Your task to perform on an android device: change your default location settings in chrome Image 0: 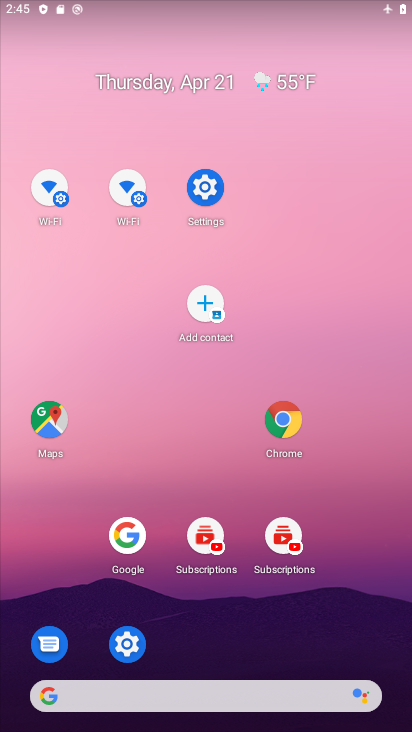
Step 0: drag from (354, 571) to (205, 164)
Your task to perform on an android device: change your default location settings in chrome Image 1: 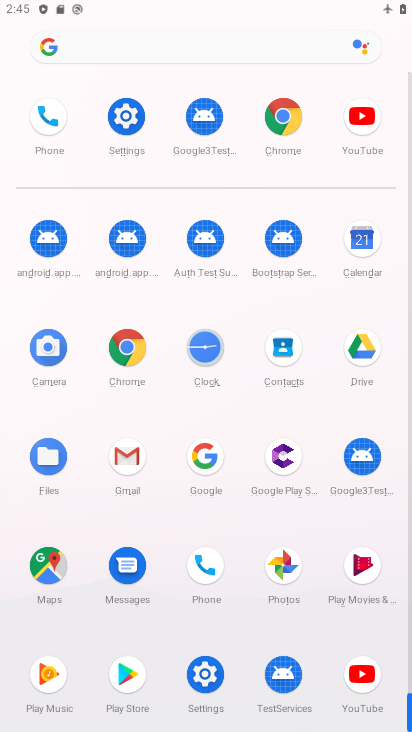
Step 1: drag from (346, 577) to (284, 2)
Your task to perform on an android device: change your default location settings in chrome Image 2: 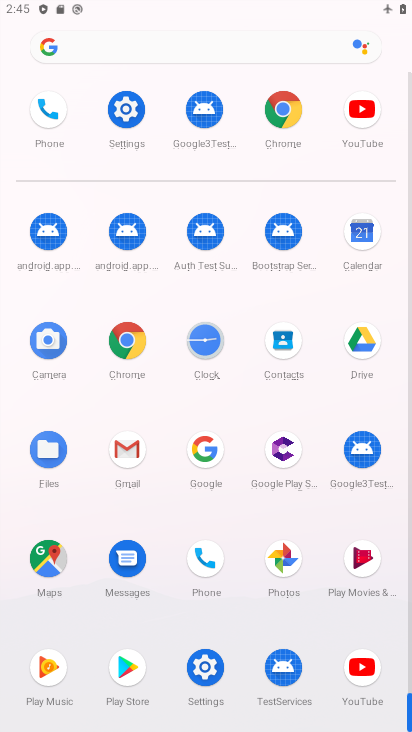
Step 2: click (125, 115)
Your task to perform on an android device: change your default location settings in chrome Image 3: 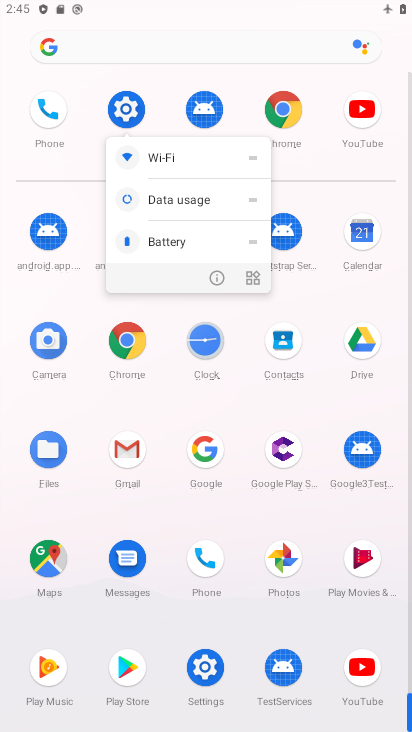
Step 3: click (142, 145)
Your task to perform on an android device: change your default location settings in chrome Image 4: 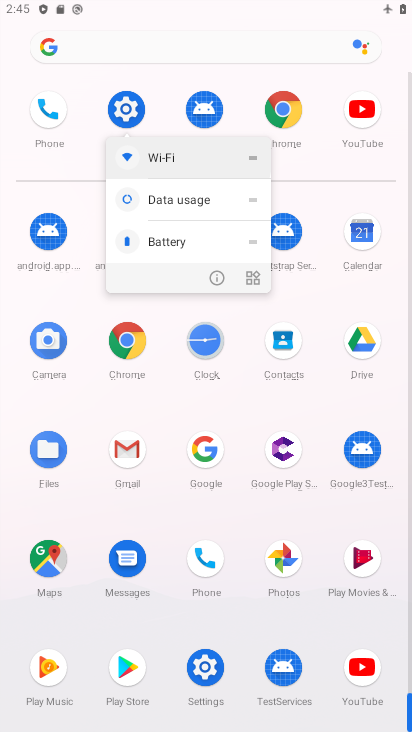
Step 4: click (125, 94)
Your task to perform on an android device: change your default location settings in chrome Image 5: 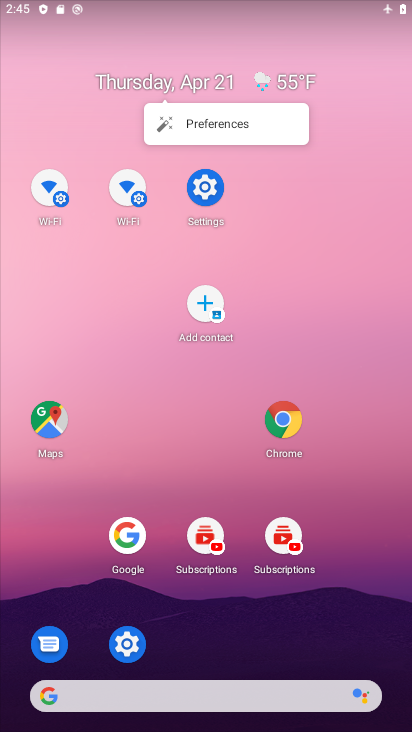
Step 5: drag from (223, 11) to (267, 0)
Your task to perform on an android device: change your default location settings in chrome Image 6: 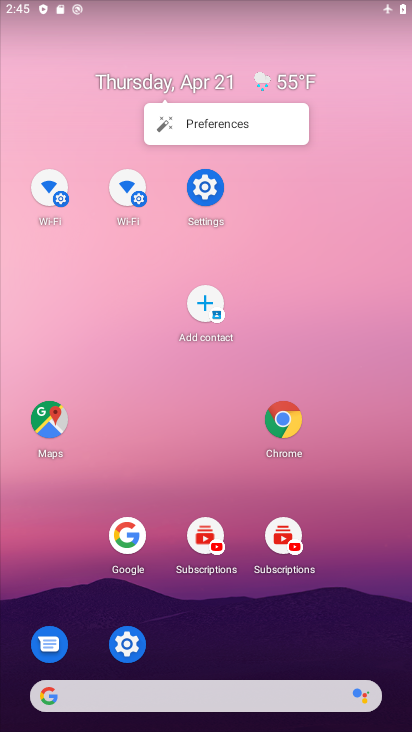
Step 6: click (99, 126)
Your task to perform on an android device: change your default location settings in chrome Image 7: 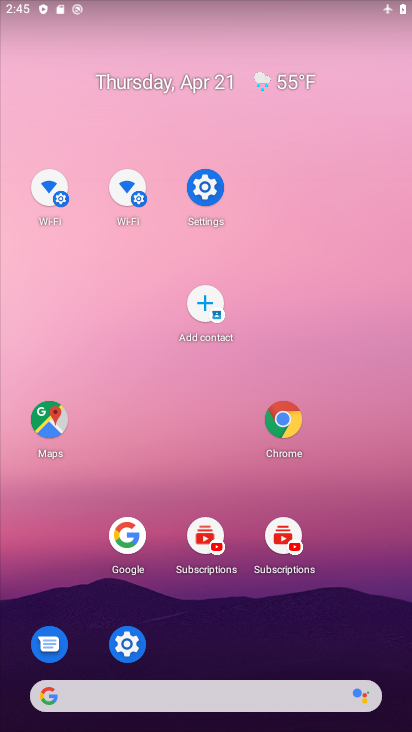
Step 7: drag from (269, 571) to (91, 41)
Your task to perform on an android device: change your default location settings in chrome Image 8: 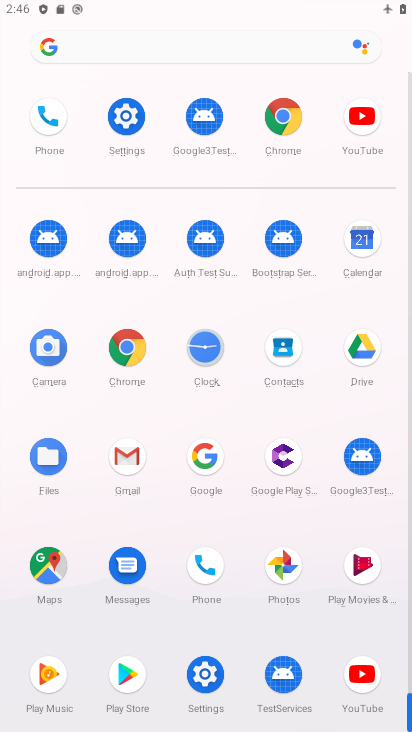
Step 8: click (291, 114)
Your task to perform on an android device: change your default location settings in chrome Image 9: 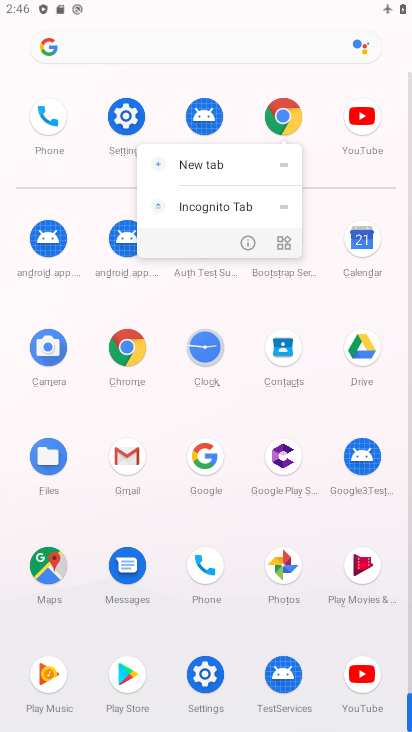
Step 9: click (281, 123)
Your task to perform on an android device: change your default location settings in chrome Image 10: 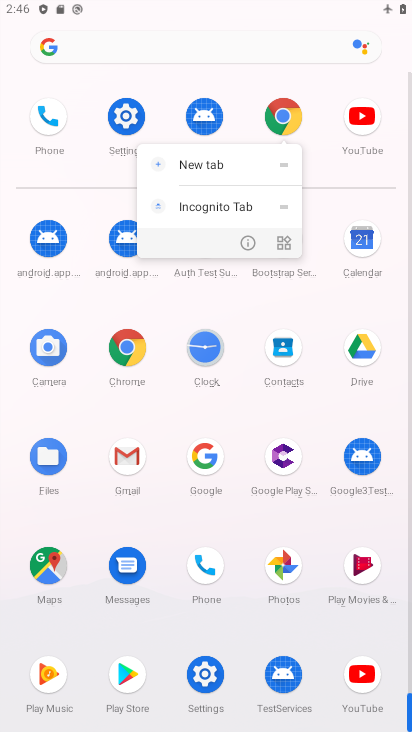
Step 10: click (282, 122)
Your task to perform on an android device: change your default location settings in chrome Image 11: 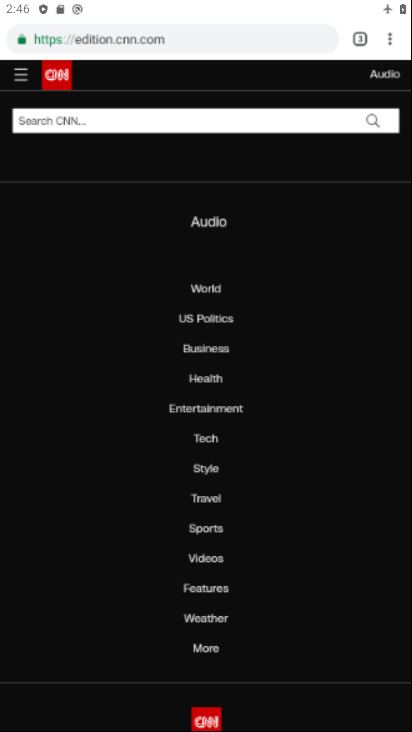
Step 11: click (278, 121)
Your task to perform on an android device: change your default location settings in chrome Image 12: 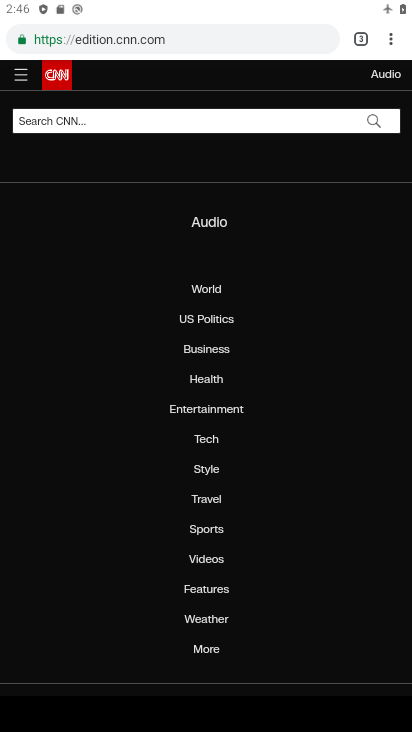
Step 12: drag from (386, 33) to (402, 184)
Your task to perform on an android device: change your default location settings in chrome Image 13: 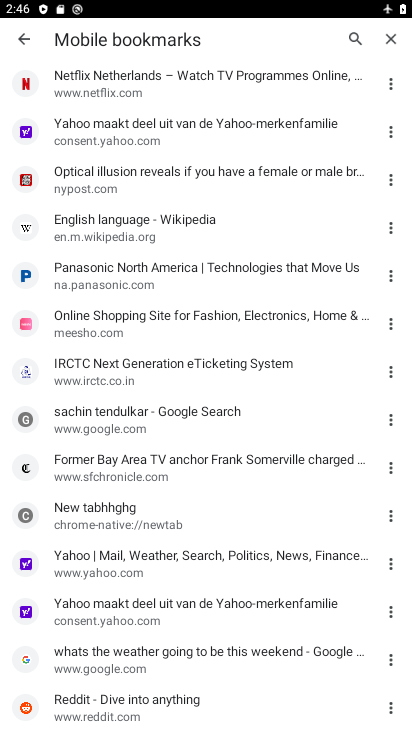
Step 13: click (27, 36)
Your task to perform on an android device: change your default location settings in chrome Image 14: 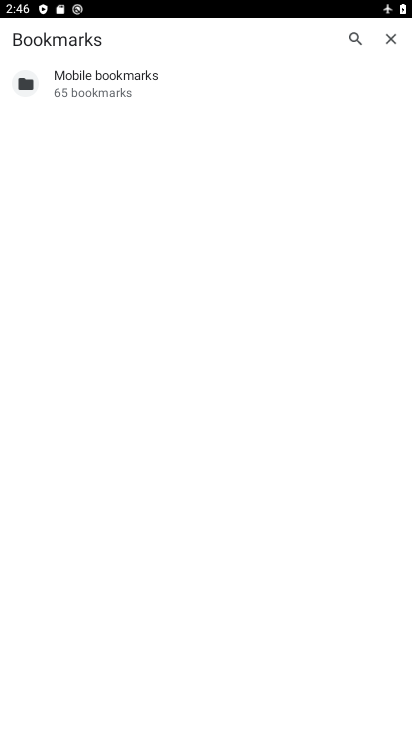
Step 14: click (386, 38)
Your task to perform on an android device: change your default location settings in chrome Image 15: 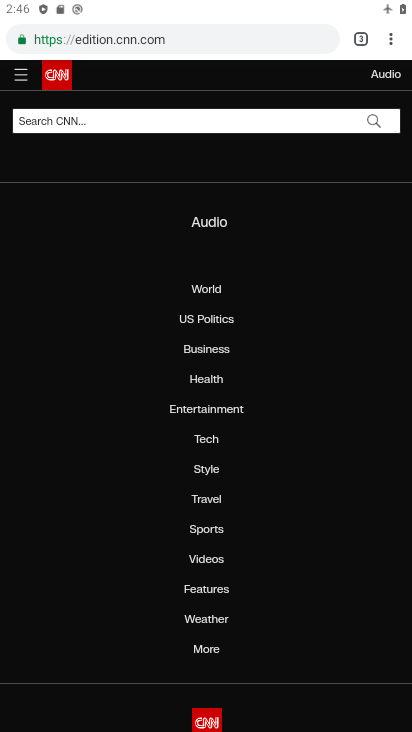
Step 15: click (392, 35)
Your task to perform on an android device: change your default location settings in chrome Image 16: 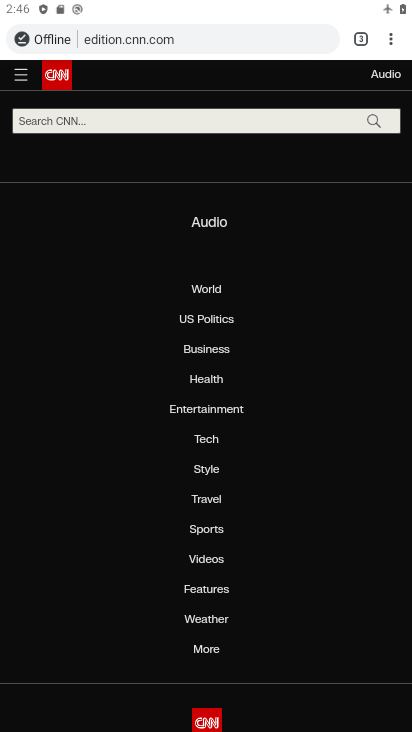
Step 16: click (390, 29)
Your task to perform on an android device: change your default location settings in chrome Image 17: 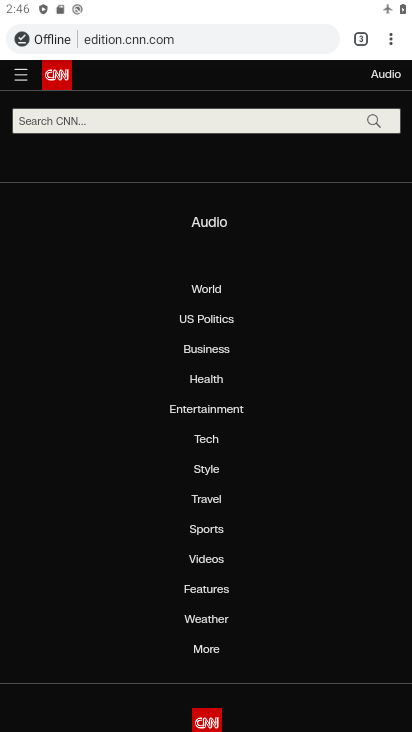
Step 17: click (394, 31)
Your task to perform on an android device: change your default location settings in chrome Image 18: 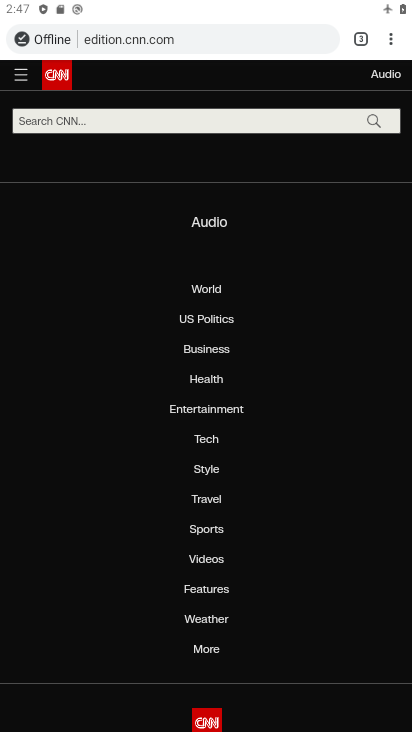
Step 18: click (394, 35)
Your task to perform on an android device: change your default location settings in chrome Image 19: 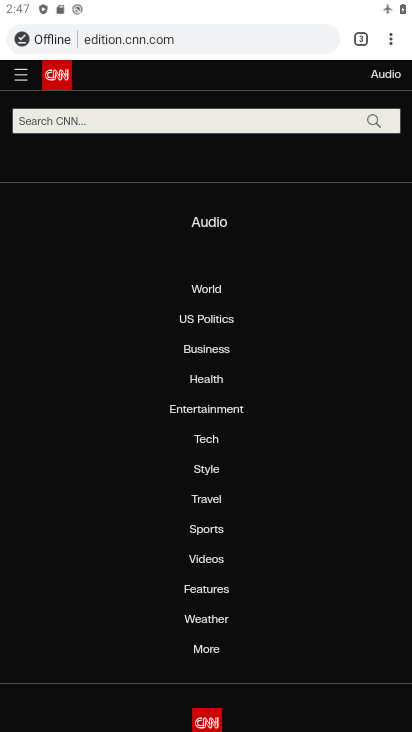
Step 19: drag from (386, 41) to (252, 461)
Your task to perform on an android device: change your default location settings in chrome Image 20: 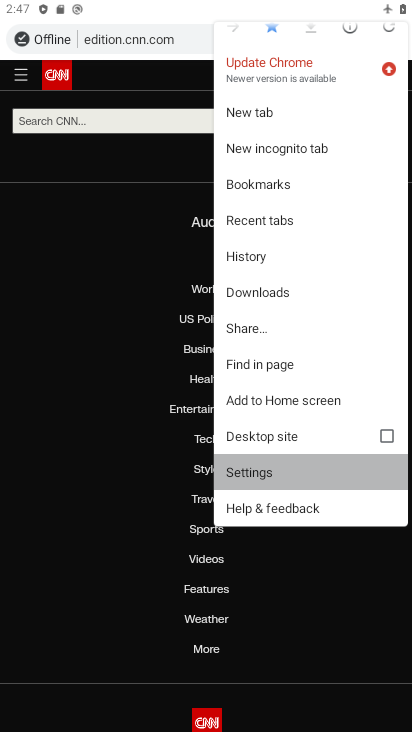
Step 20: click (252, 461)
Your task to perform on an android device: change your default location settings in chrome Image 21: 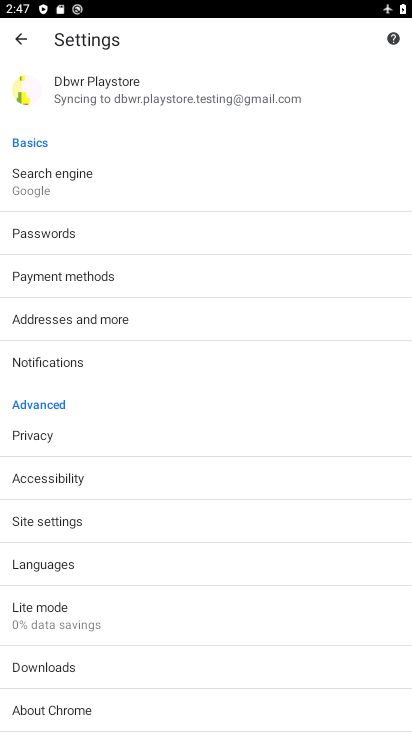
Step 21: click (39, 559)
Your task to perform on an android device: change your default location settings in chrome Image 22: 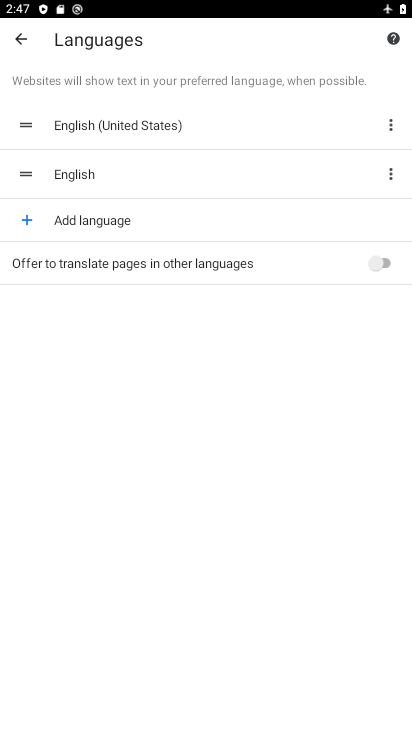
Step 22: click (374, 264)
Your task to perform on an android device: change your default location settings in chrome Image 23: 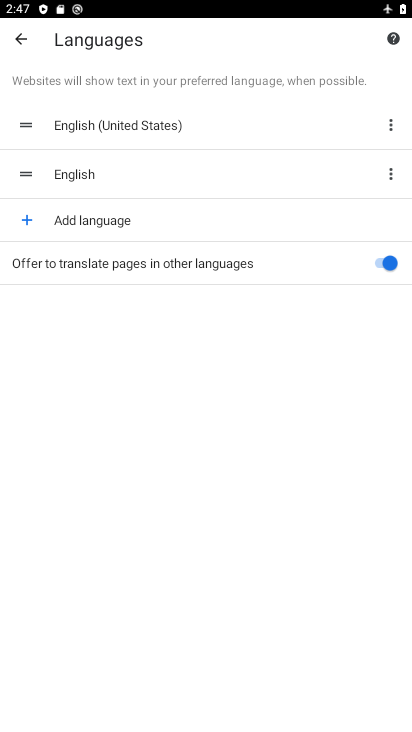
Step 23: task complete